Your task to perform on an android device: Open my contact list Image 0: 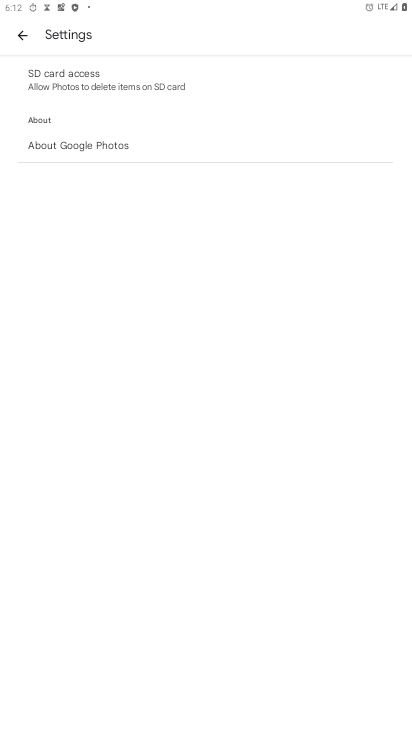
Step 0: press home button
Your task to perform on an android device: Open my contact list Image 1: 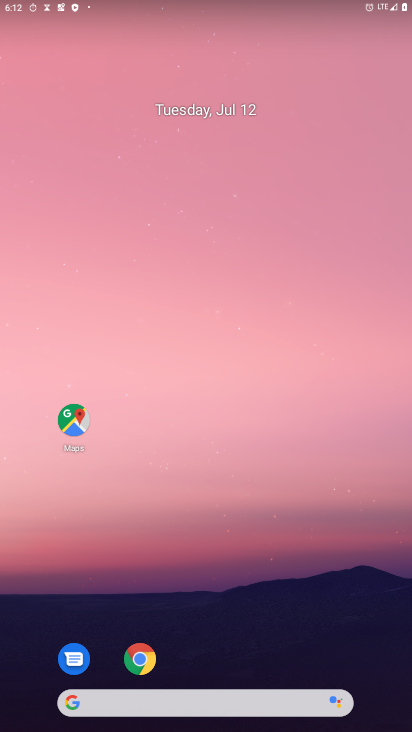
Step 1: drag from (209, 469) to (199, 121)
Your task to perform on an android device: Open my contact list Image 2: 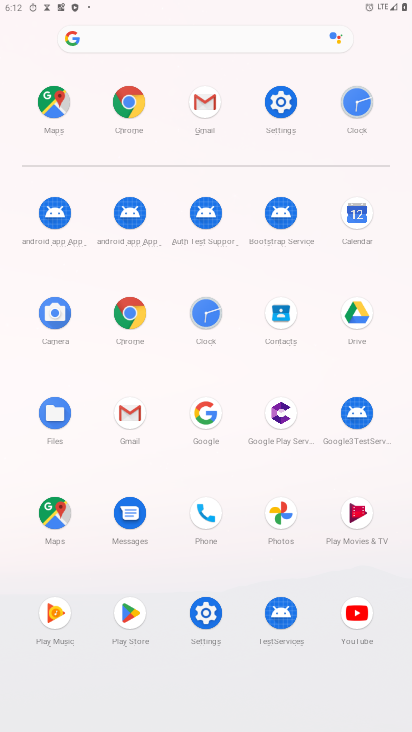
Step 2: click (278, 339)
Your task to perform on an android device: Open my contact list Image 3: 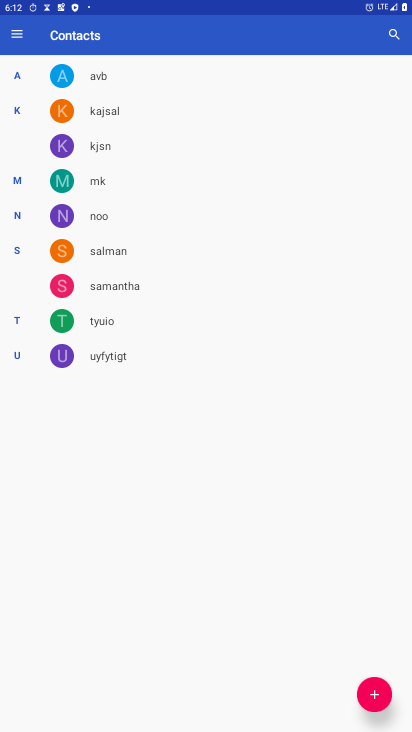
Step 3: task complete